Your task to perform on an android device: empty trash in google photos Image 0: 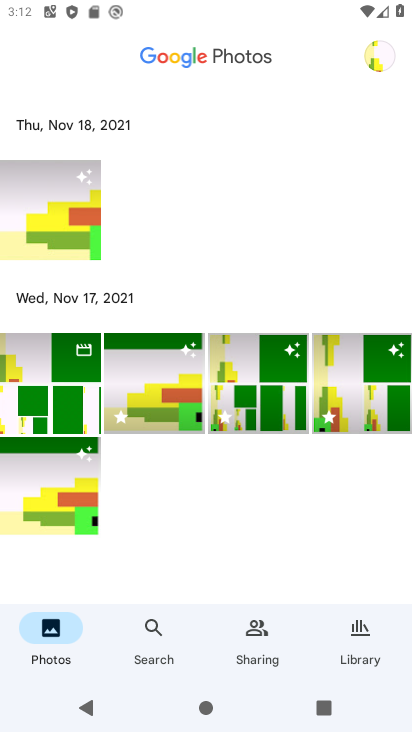
Step 0: click (362, 632)
Your task to perform on an android device: empty trash in google photos Image 1: 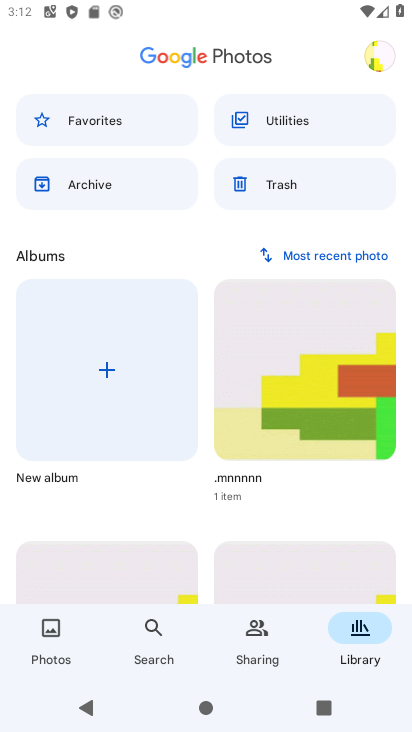
Step 1: click (307, 176)
Your task to perform on an android device: empty trash in google photos Image 2: 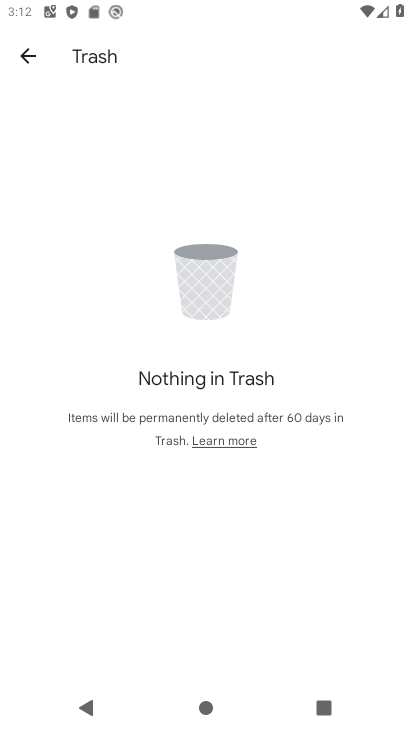
Step 2: task complete